Your task to perform on an android device: show emergency info Image 0: 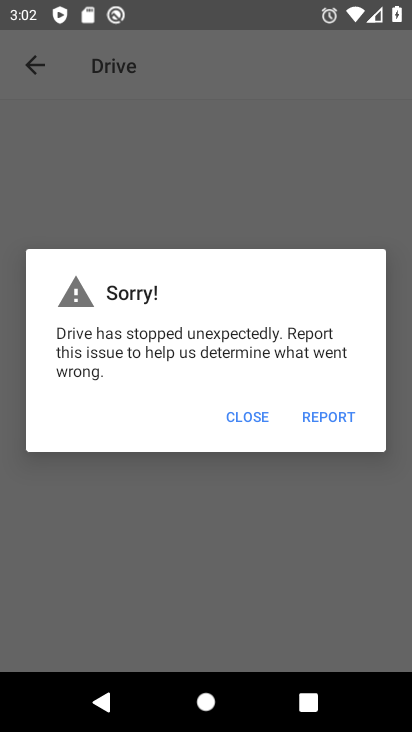
Step 0: press home button
Your task to perform on an android device: show emergency info Image 1: 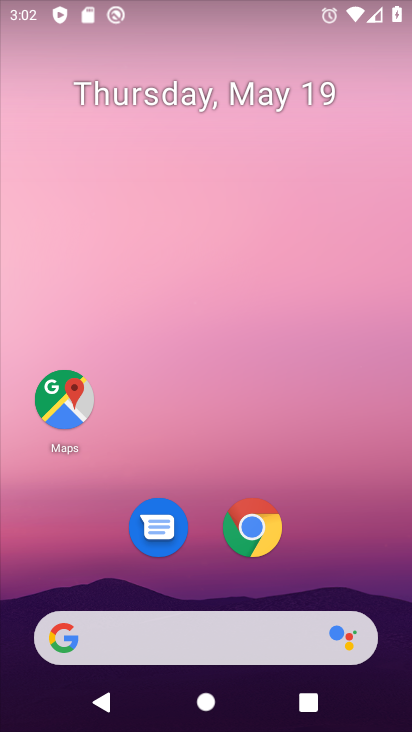
Step 1: drag from (142, 552) to (309, 36)
Your task to perform on an android device: show emergency info Image 2: 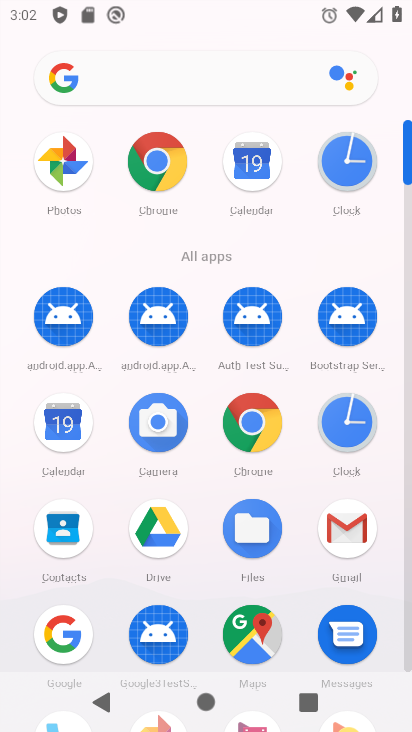
Step 2: drag from (222, 602) to (358, 21)
Your task to perform on an android device: show emergency info Image 3: 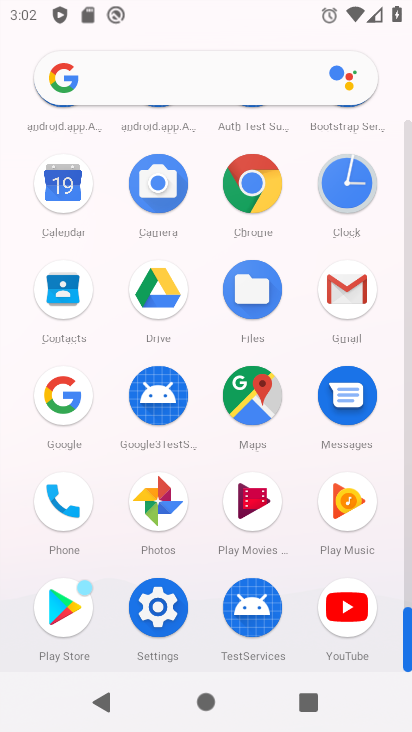
Step 3: click (172, 604)
Your task to perform on an android device: show emergency info Image 4: 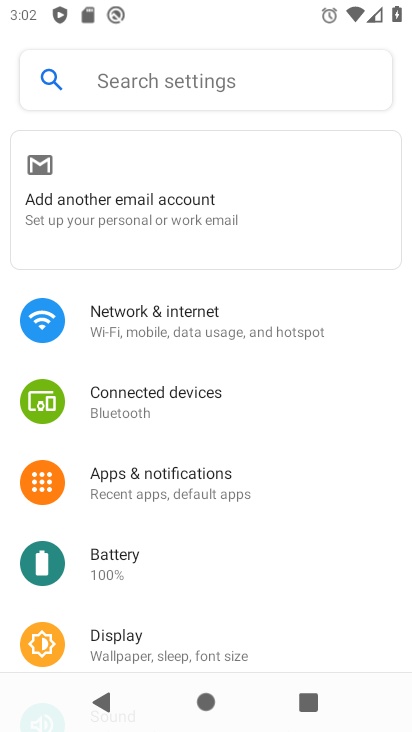
Step 4: drag from (168, 586) to (279, 48)
Your task to perform on an android device: show emergency info Image 5: 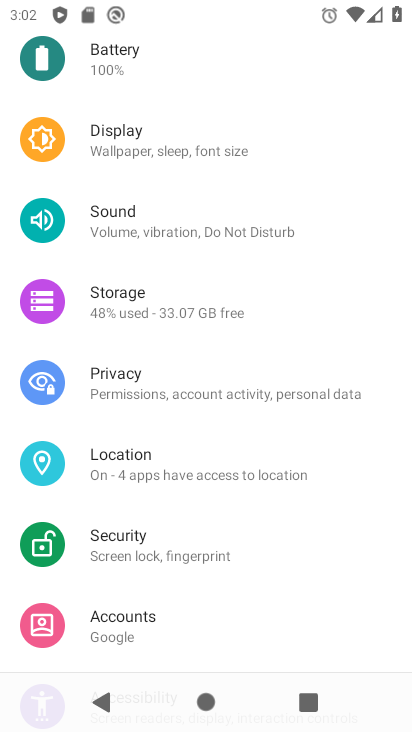
Step 5: drag from (226, 537) to (281, 58)
Your task to perform on an android device: show emergency info Image 6: 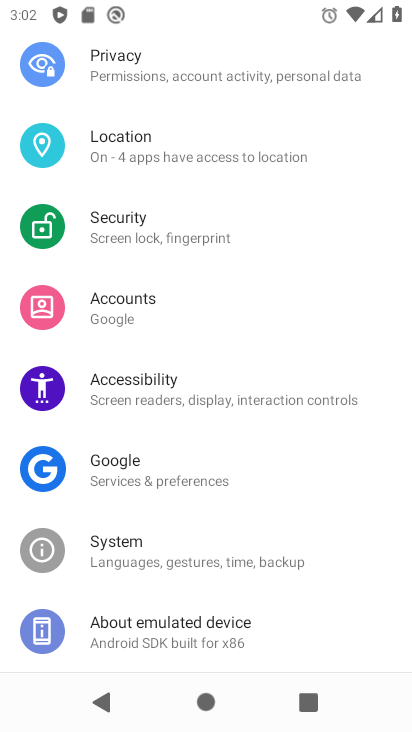
Step 6: drag from (170, 521) to (245, 70)
Your task to perform on an android device: show emergency info Image 7: 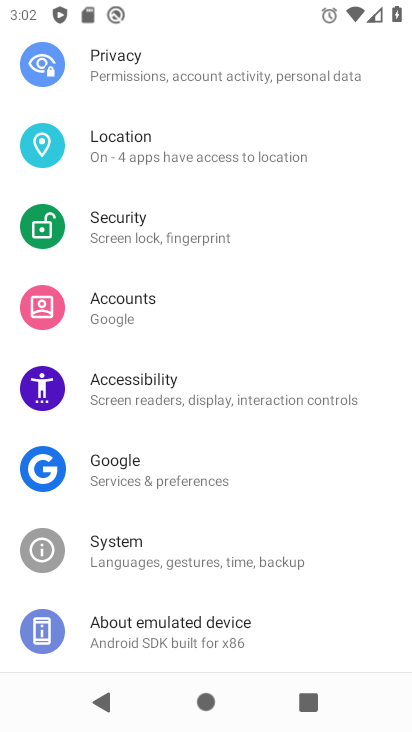
Step 7: click (142, 622)
Your task to perform on an android device: show emergency info Image 8: 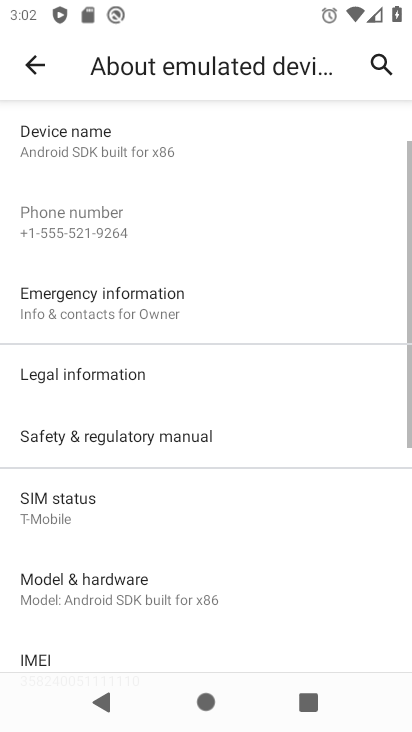
Step 8: click (110, 296)
Your task to perform on an android device: show emergency info Image 9: 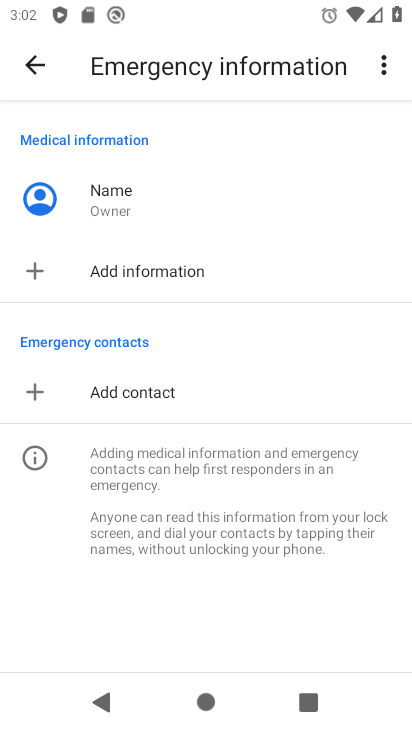
Step 9: task complete